Your task to perform on an android device: turn off notifications in google photos Image 0: 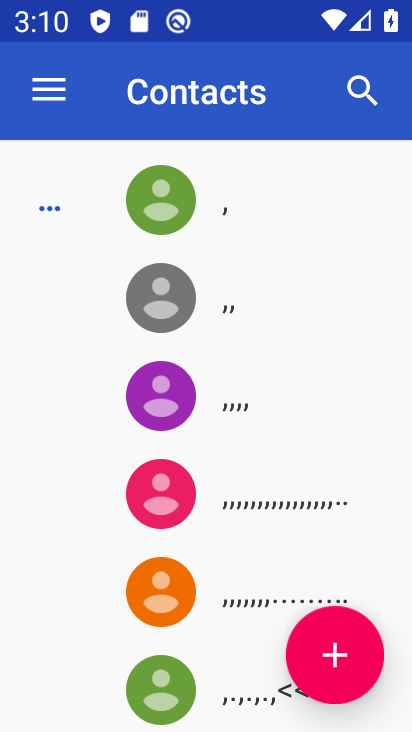
Step 0: press back button
Your task to perform on an android device: turn off notifications in google photos Image 1: 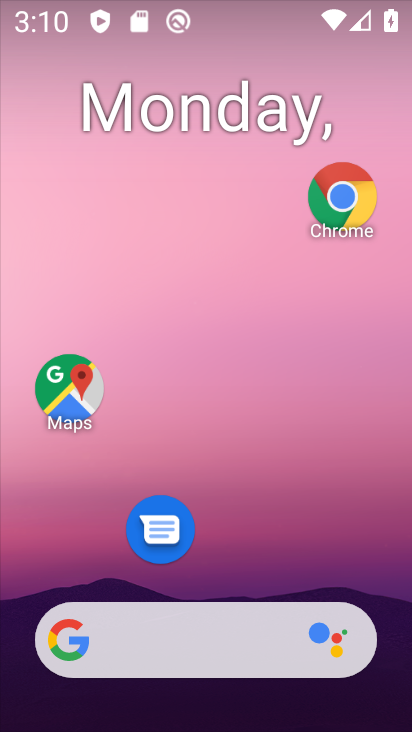
Step 1: drag from (201, 598) to (263, 51)
Your task to perform on an android device: turn off notifications in google photos Image 2: 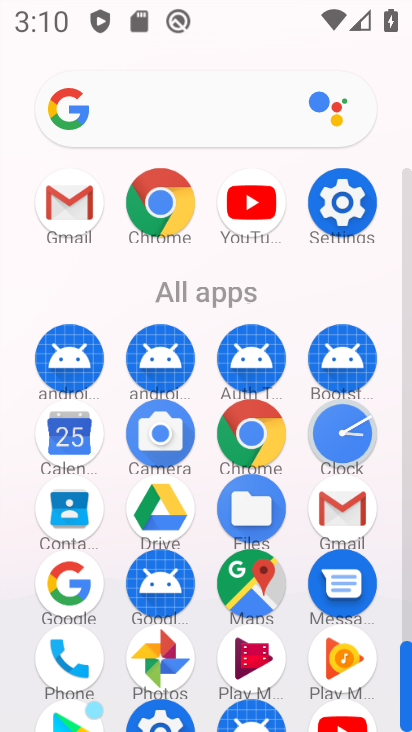
Step 2: drag from (194, 629) to (261, 259)
Your task to perform on an android device: turn off notifications in google photos Image 3: 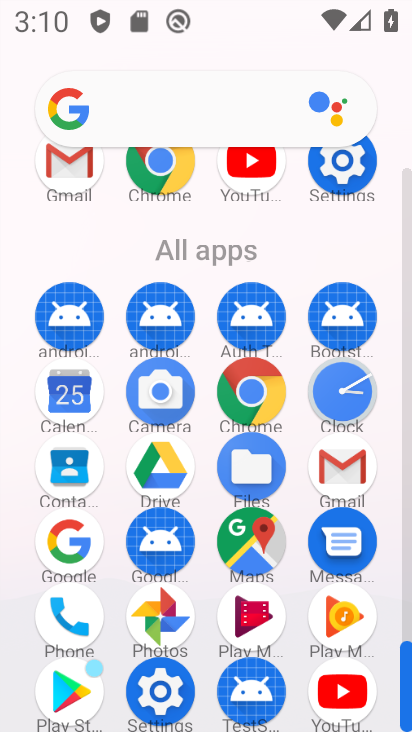
Step 3: click (167, 589)
Your task to perform on an android device: turn off notifications in google photos Image 4: 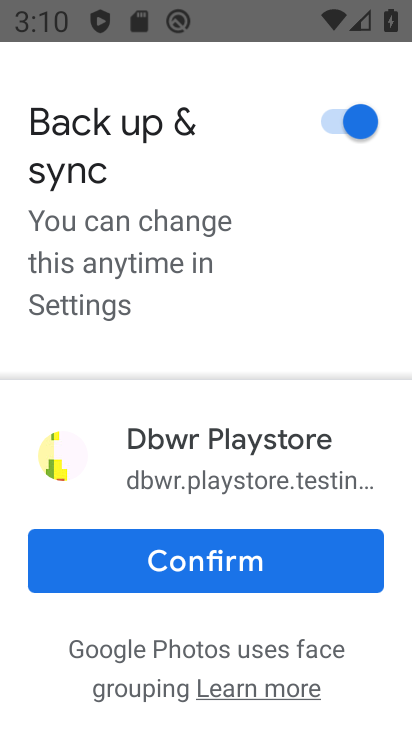
Step 4: click (220, 570)
Your task to perform on an android device: turn off notifications in google photos Image 5: 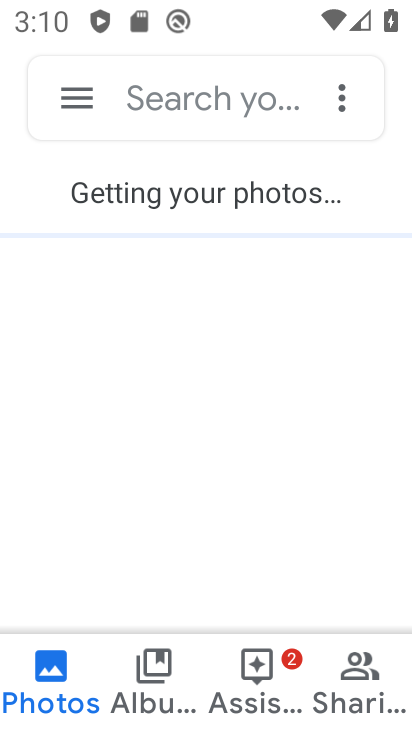
Step 5: click (91, 87)
Your task to perform on an android device: turn off notifications in google photos Image 6: 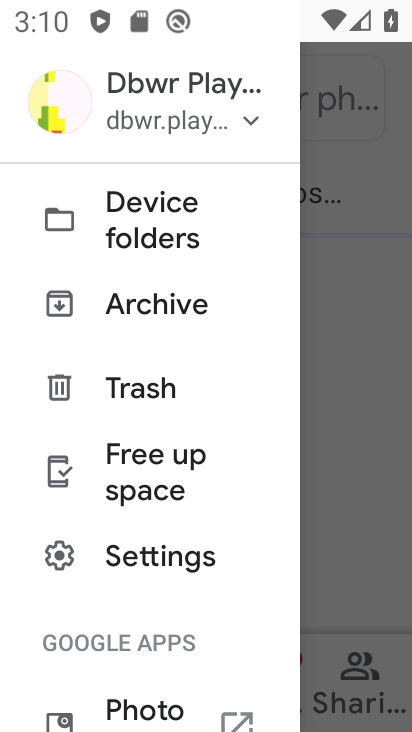
Step 6: drag from (149, 607) to (234, 213)
Your task to perform on an android device: turn off notifications in google photos Image 7: 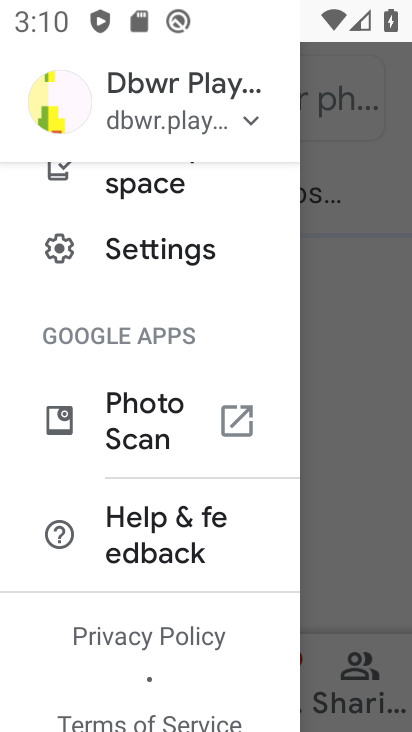
Step 7: click (190, 259)
Your task to perform on an android device: turn off notifications in google photos Image 8: 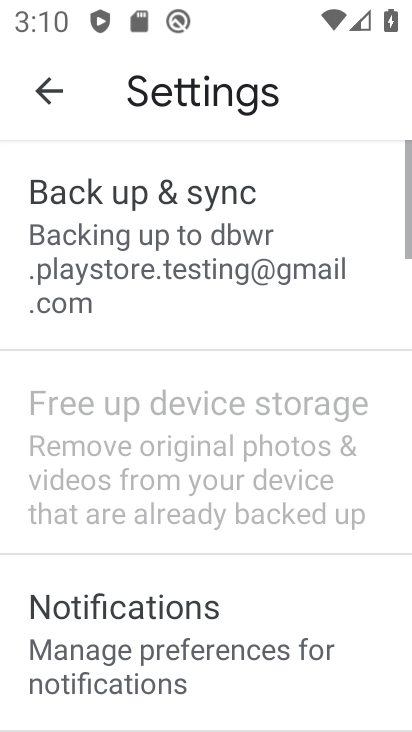
Step 8: drag from (218, 604) to (250, 248)
Your task to perform on an android device: turn off notifications in google photos Image 9: 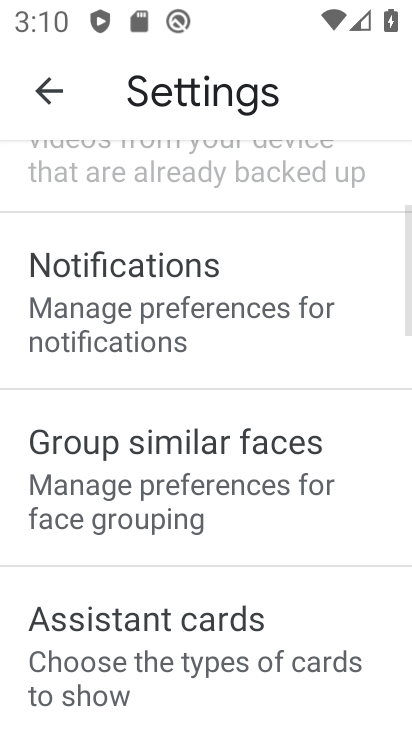
Step 9: click (223, 312)
Your task to perform on an android device: turn off notifications in google photos Image 10: 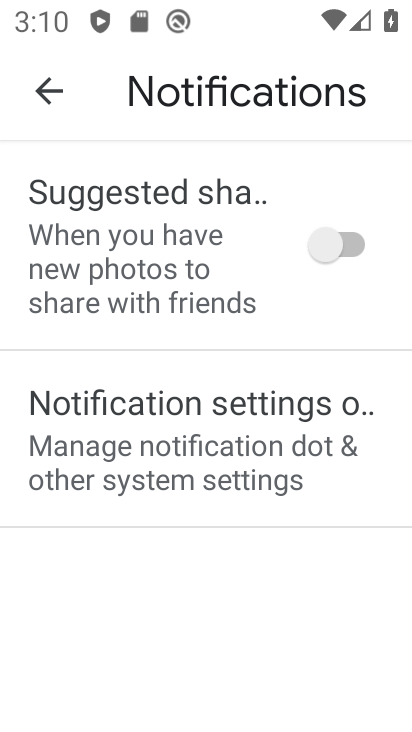
Step 10: click (256, 467)
Your task to perform on an android device: turn off notifications in google photos Image 11: 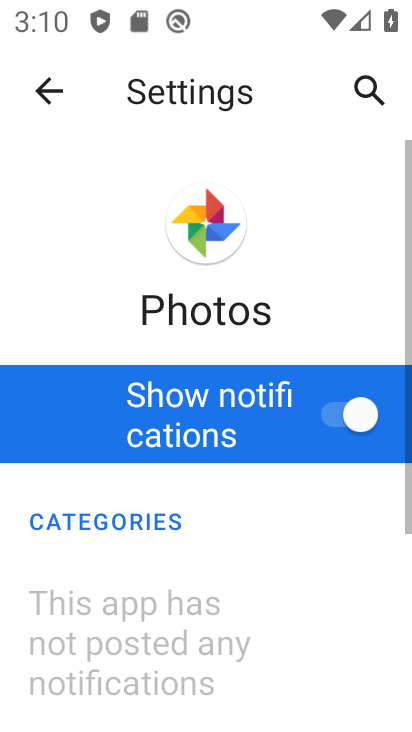
Step 11: click (332, 406)
Your task to perform on an android device: turn off notifications in google photos Image 12: 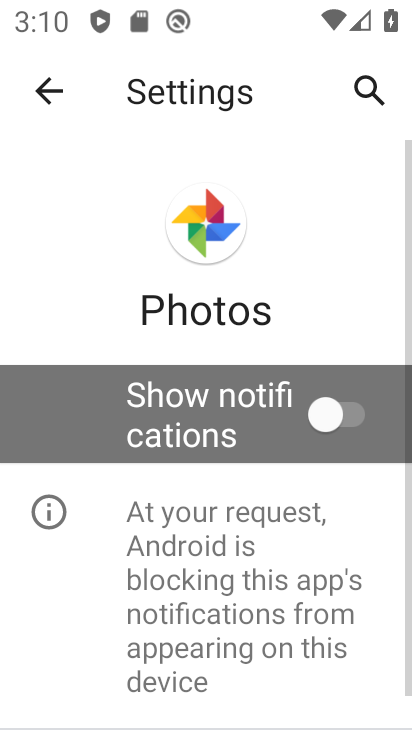
Step 12: task complete